Your task to perform on an android device: Open calendar and show me the second week of next month Image 0: 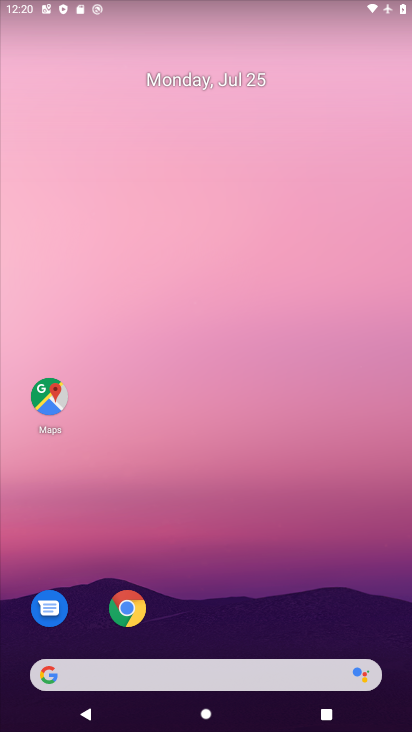
Step 0: drag from (194, 572) to (251, 271)
Your task to perform on an android device: Open calendar and show me the second week of next month Image 1: 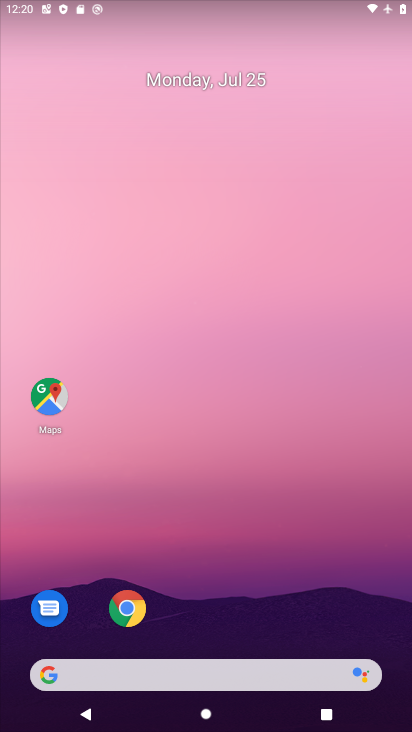
Step 1: drag from (228, 595) to (248, 260)
Your task to perform on an android device: Open calendar and show me the second week of next month Image 2: 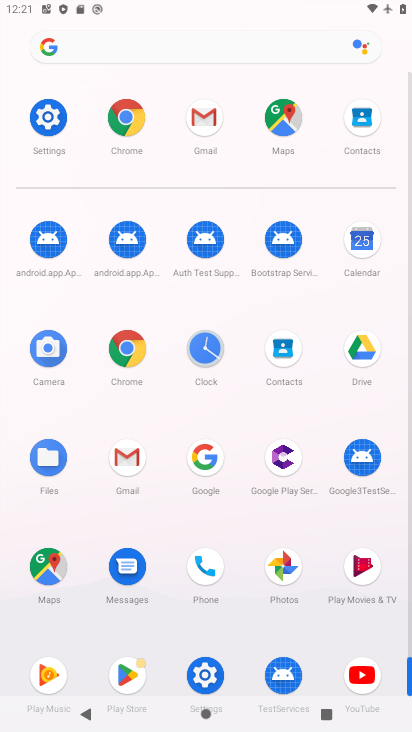
Step 2: click (355, 252)
Your task to perform on an android device: Open calendar and show me the second week of next month Image 3: 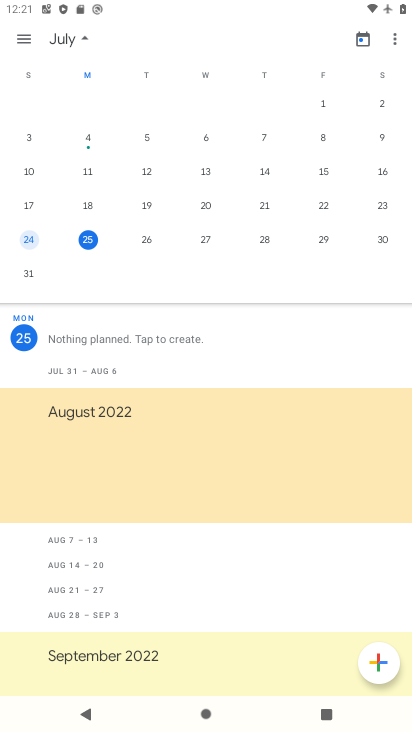
Step 3: drag from (311, 201) to (0, 238)
Your task to perform on an android device: Open calendar and show me the second week of next month Image 4: 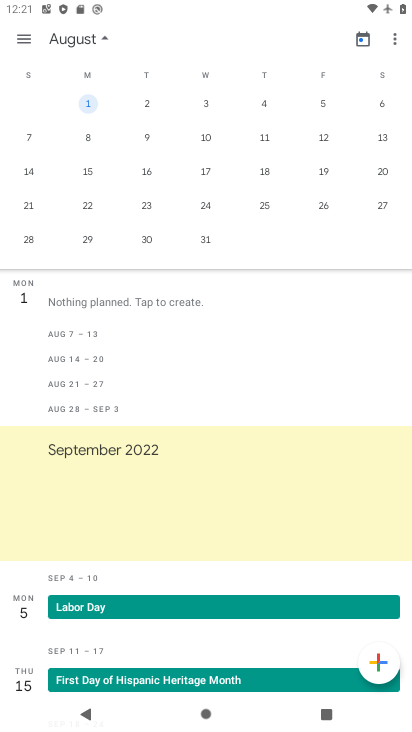
Step 4: click (26, 144)
Your task to perform on an android device: Open calendar and show me the second week of next month Image 5: 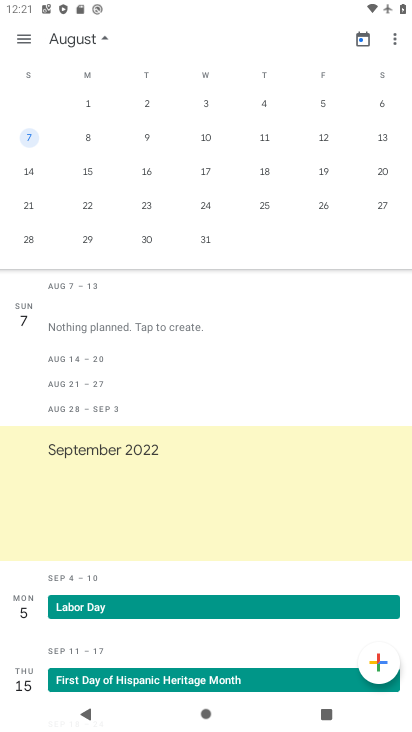
Step 5: task complete